Your task to perform on an android device: turn off picture-in-picture Image 0: 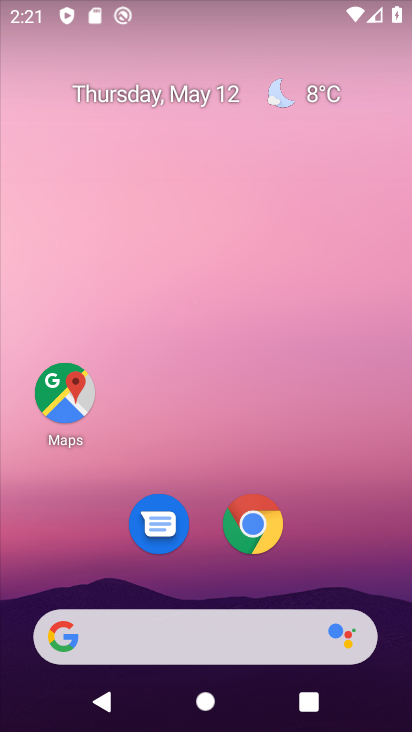
Step 0: click (248, 527)
Your task to perform on an android device: turn off picture-in-picture Image 1: 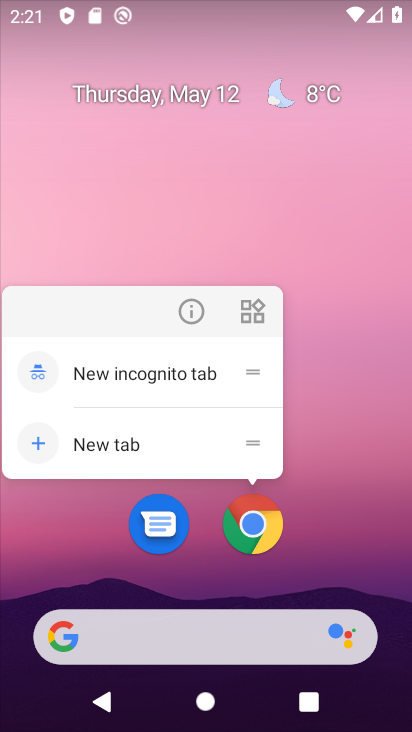
Step 1: click (190, 299)
Your task to perform on an android device: turn off picture-in-picture Image 2: 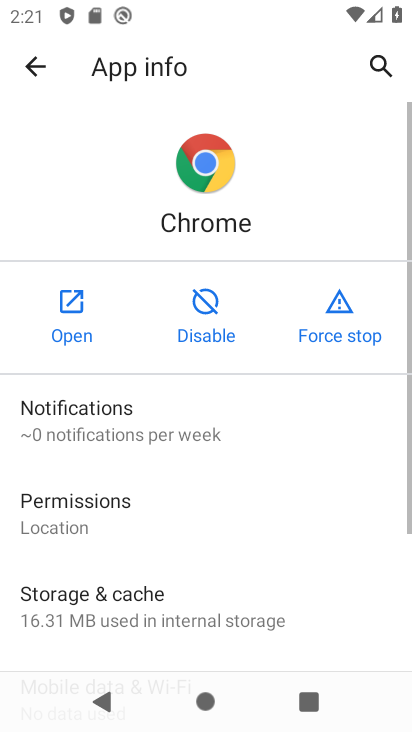
Step 2: drag from (194, 526) to (216, 210)
Your task to perform on an android device: turn off picture-in-picture Image 3: 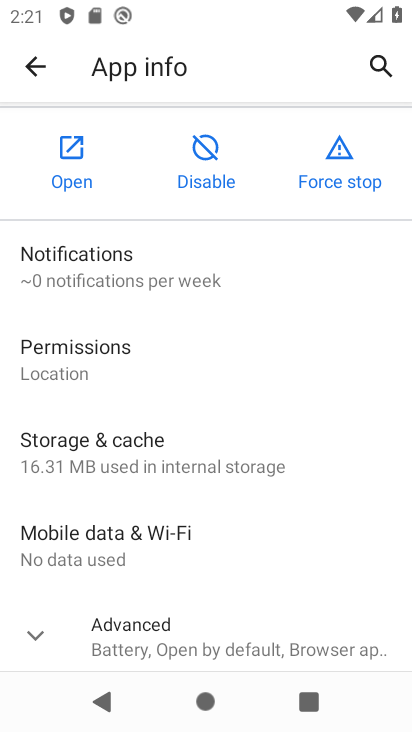
Step 3: click (33, 636)
Your task to perform on an android device: turn off picture-in-picture Image 4: 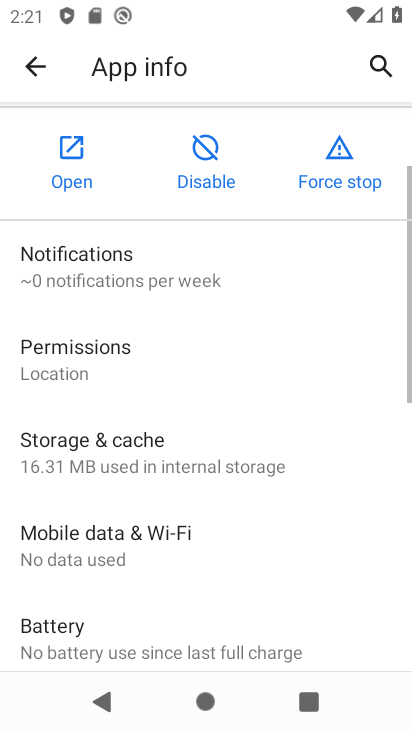
Step 4: drag from (233, 531) to (258, 189)
Your task to perform on an android device: turn off picture-in-picture Image 5: 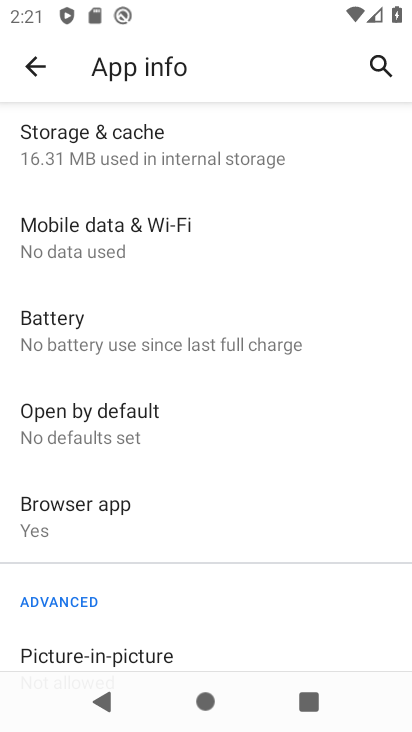
Step 5: drag from (144, 564) to (180, 289)
Your task to perform on an android device: turn off picture-in-picture Image 6: 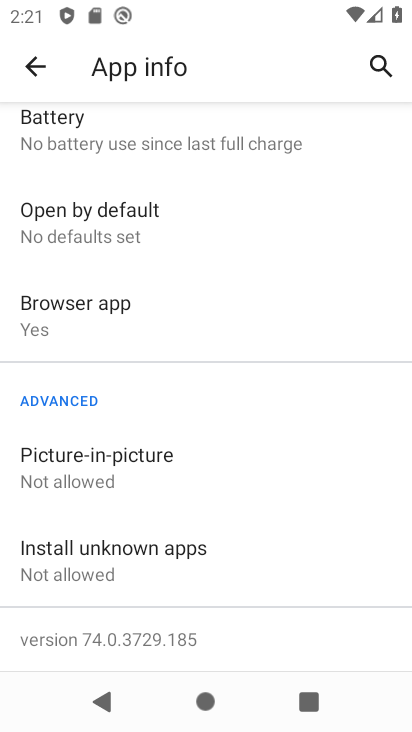
Step 6: click (192, 560)
Your task to perform on an android device: turn off picture-in-picture Image 7: 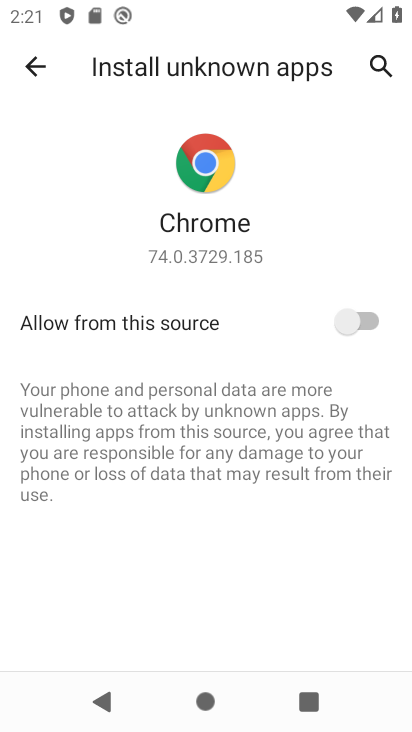
Step 7: task complete